Your task to perform on an android device: Go to Google Image 0: 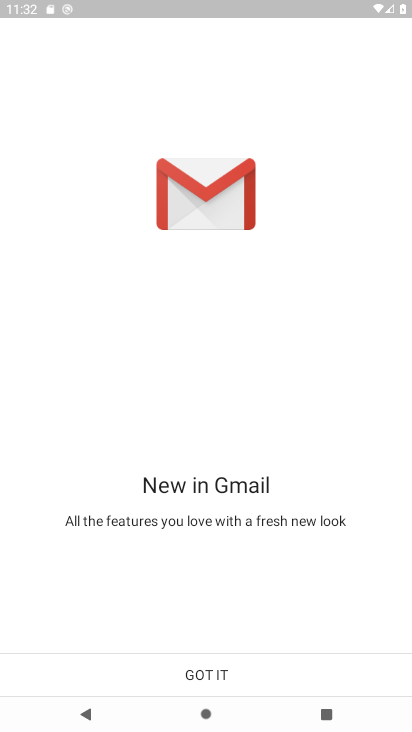
Step 0: press home button
Your task to perform on an android device: Go to Google Image 1: 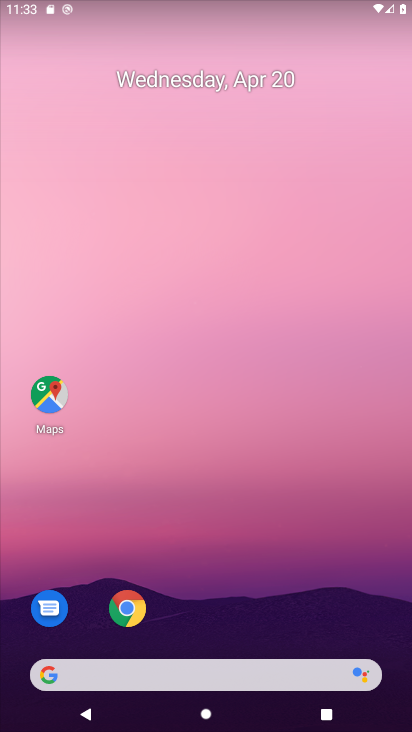
Step 1: click (208, 684)
Your task to perform on an android device: Go to Google Image 2: 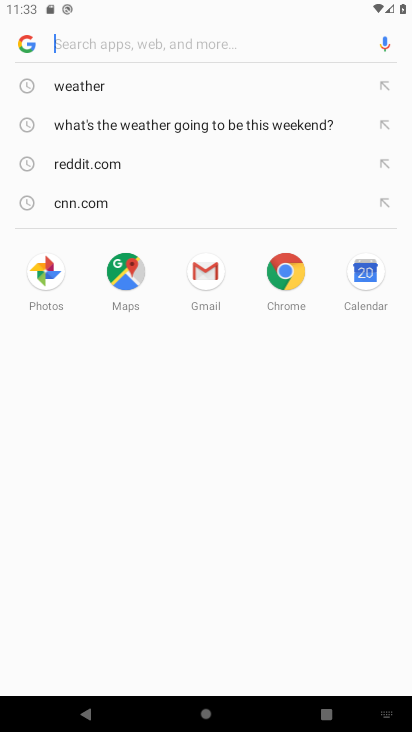
Step 2: type "google.com"
Your task to perform on an android device: Go to Google Image 3: 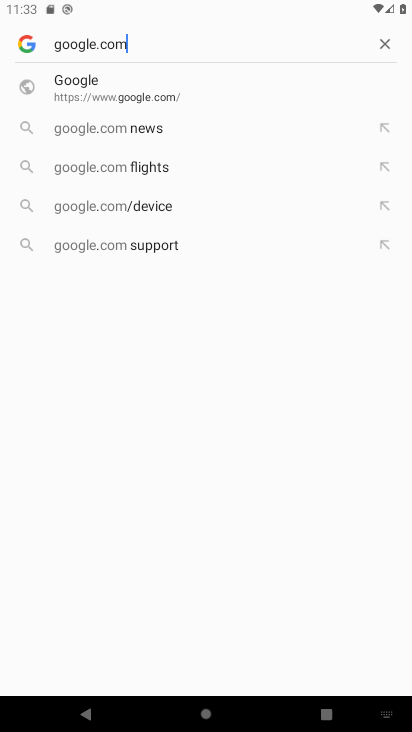
Step 3: click (126, 87)
Your task to perform on an android device: Go to Google Image 4: 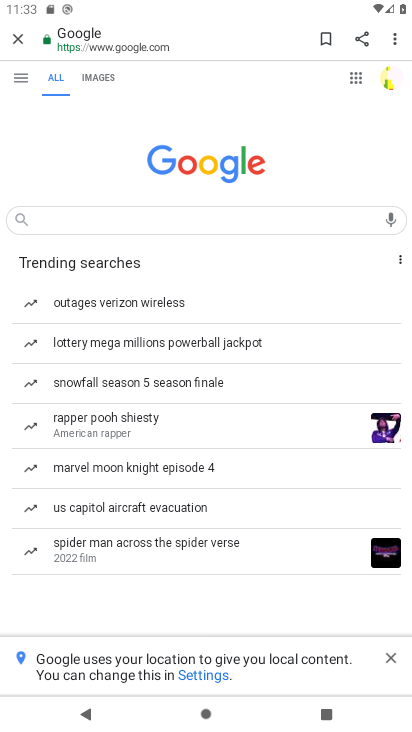
Step 4: task complete